Your task to perform on an android device: Add macbook pro to the cart on newegg, then select checkout. Image 0: 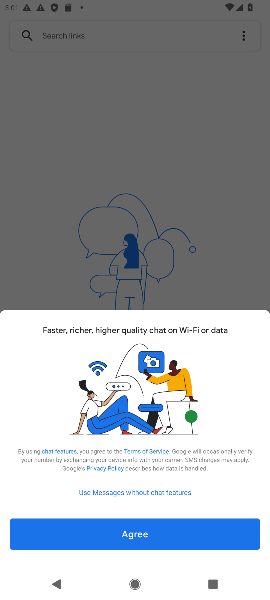
Step 0: press home button
Your task to perform on an android device: Add macbook pro to the cart on newegg, then select checkout. Image 1: 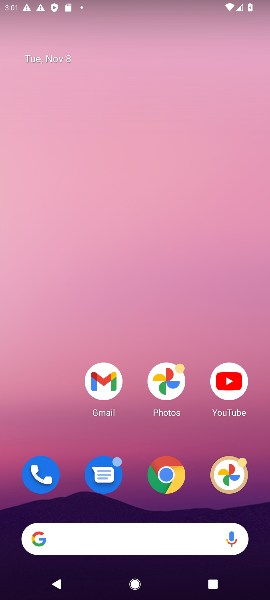
Step 1: drag from (178, 522) to (147, 112)
Your task to perform on an android device: Add macbook pro to the cart on newegg, then select checkout. Image 2: 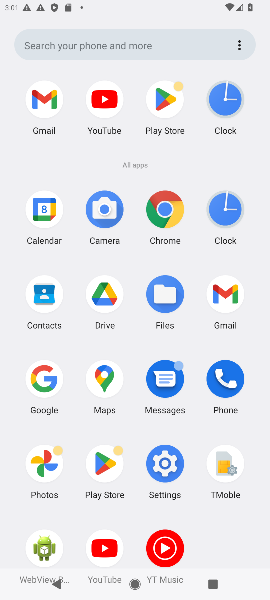
Step 2: click (49, 373)
Your task to perform on an android device: Add macbook pro to the cart on newegg, then select checkout. Image 3: 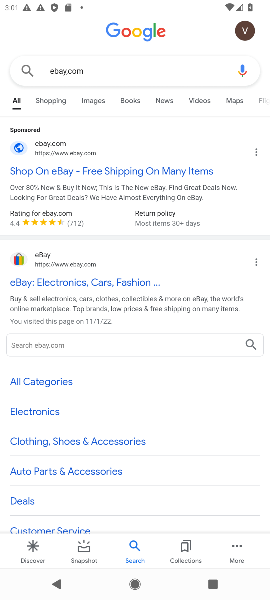
Step 3: click (130, 67)
Your task to perform on an android device: Add macbook pro to the cart on newegg, then select checkout. Image 4: 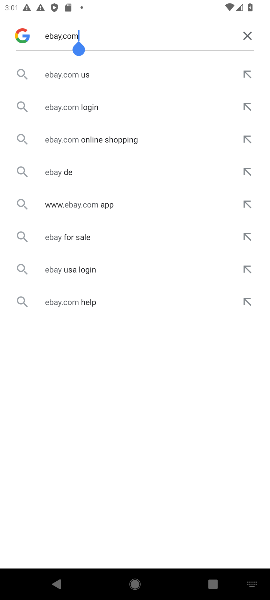
Step 4: click (246, 37)
Your task to perform on an android device: Add macbook pro to the cart on newegg, then select checkout. Image 5: 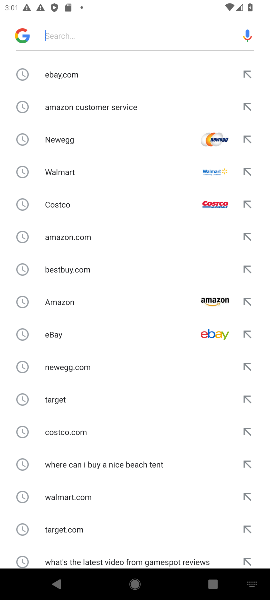
Step 5: click (75, 17)
Your task to perform on an android device: Add macbook pro to the cart on newegg, then select checkout. Image 6: 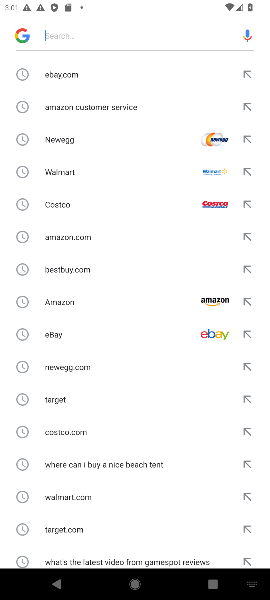
Step 6: click (77, 27)
Your task to perform on an android device: Add macbook pro to the cart on newegg, then select checkout. Image 7: 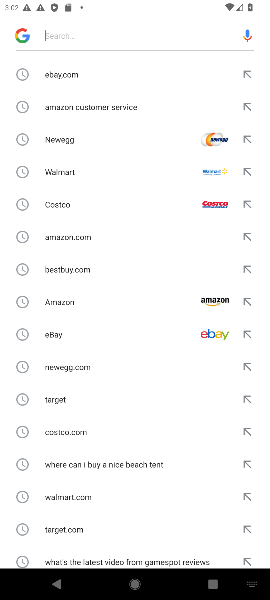
Step 7: click (96, 37)
Your task to perform on an android device: Add macbook pro to the cart on newegg, then select checkout. Image 8: 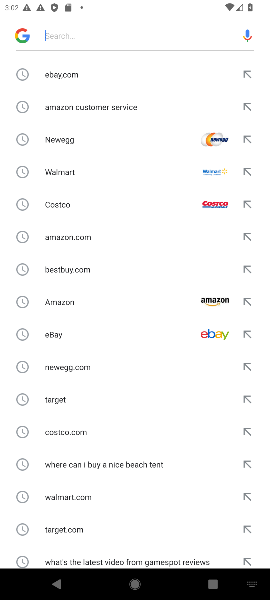
Step 8: type "newegg "
Your task to perform on an android device: Add macbook pro to the cart on newegg, then select checkout. Image 9: 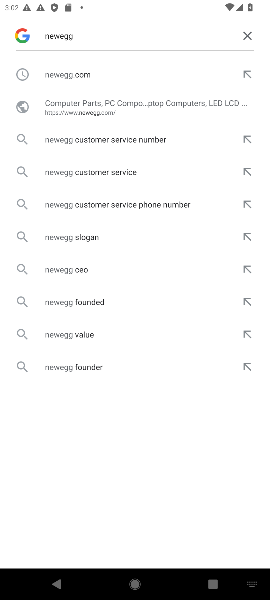
Step 9: click (98, 69)
Your task to perform on an android device: Add macbook pro to the cart on newegg, then select checkout. Image 10: 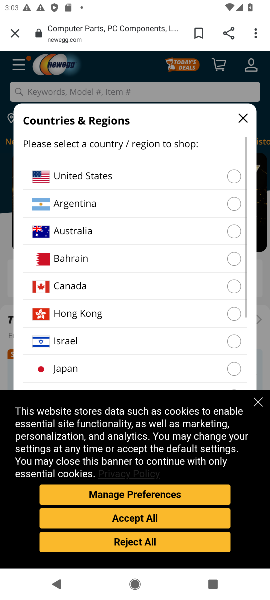
Step 10: click (138, 514)
Your task to perform on an android device: Add macbook pro to the cart on newegg, then select checkout. Image 11: 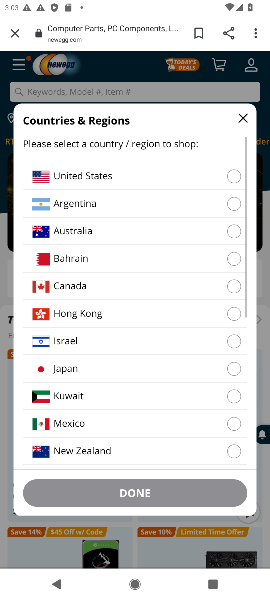
Step 11: click (244, 117)
Your task to perform on an android device: Add macbook pro to the cart on newegg, then select checkout. Image 12: 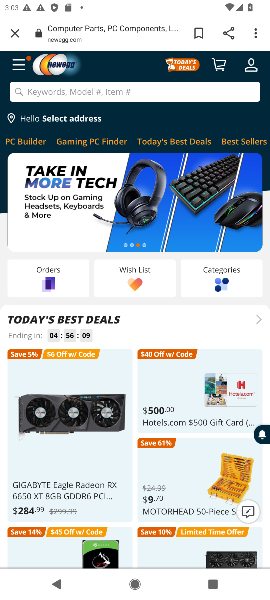
Step 12: click (86, 90)
Your task to perform on an android device: Add macbook pro to the cart on newegg, then select checkout. Image 13: 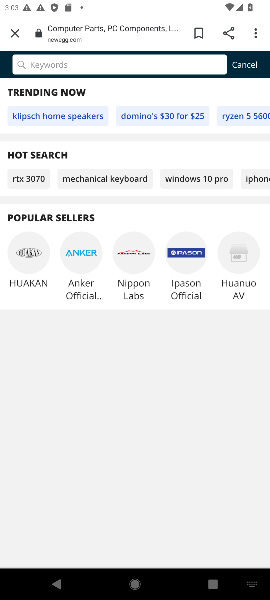
Step 13: type "macbook pro  "
Your task to perform on an android device: Add macbook pro to the cart on newegg, then select checkout. Image 14: 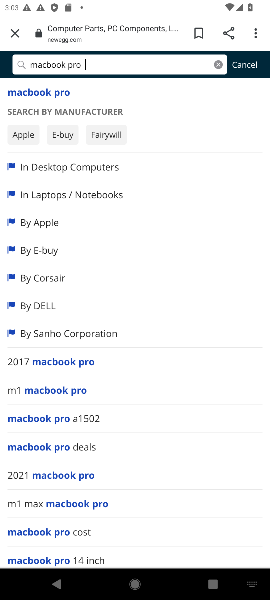
Step 14: click (48, 91)
Your task to perform on an android device: Add macbook pro to the cart on newegg, then select checkout. Image 15: 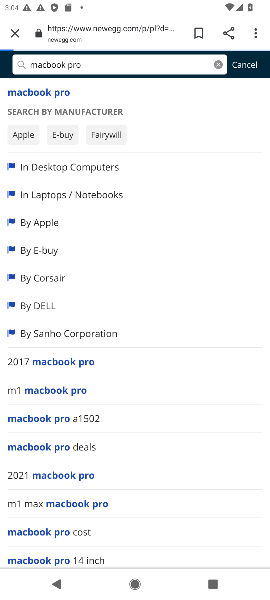
Step 15: click (48, 91)
Your task to perform on an android device: Add macbook pro to the cart on newegg, then select checkout. Image 16: 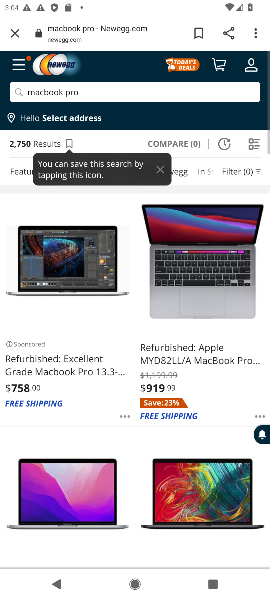
Step 16: click (79, 256)
Your task to perform on an android device: Add macbook pro to the cart on newegg, then select checkout. Image 17: 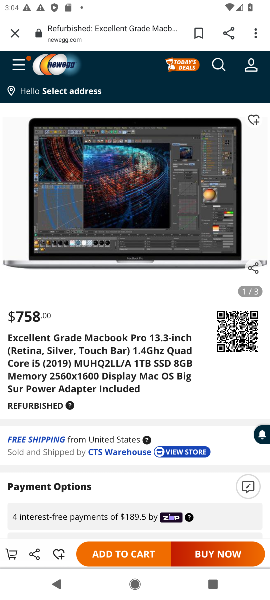
Step 17: click (105, 555)
Your task to perform on an android device: Add macbook pro to the cart on newegg, then select checkout. Image 18: 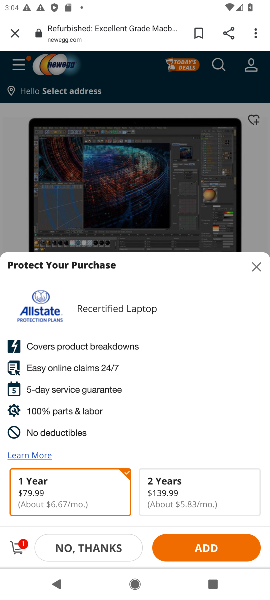
Step 18: task complete